Your task to perform on an android device: toggle pop-ups in chrome Image 0: 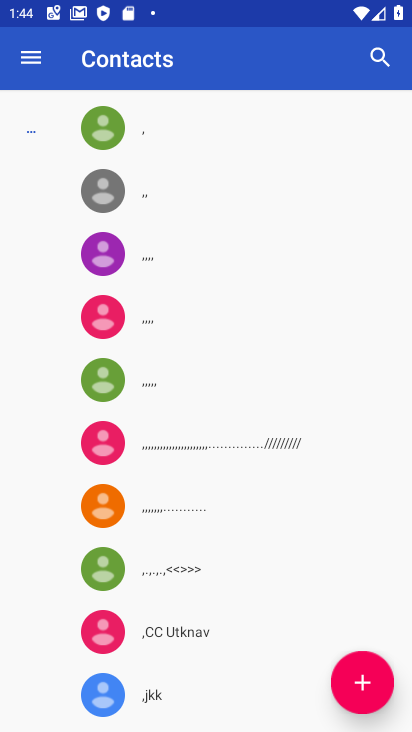
Step 0: press home button
Your task to perform on an android device: toggle pop-ups in chrome Image 1: 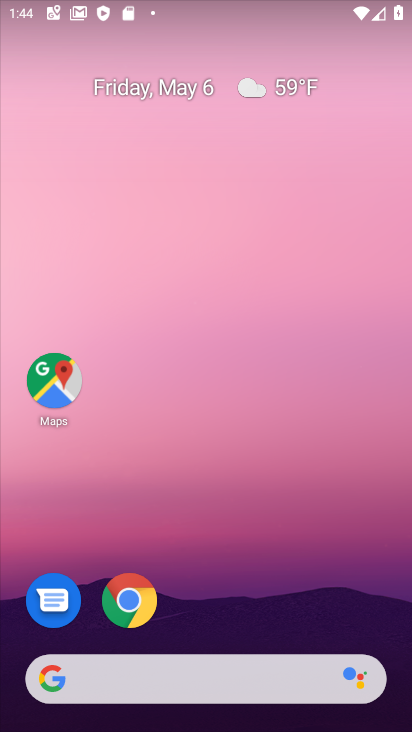
Step 1: click (128, 599)
Your task to perform on an android device: toggle pop-ups in chrome Image 2: 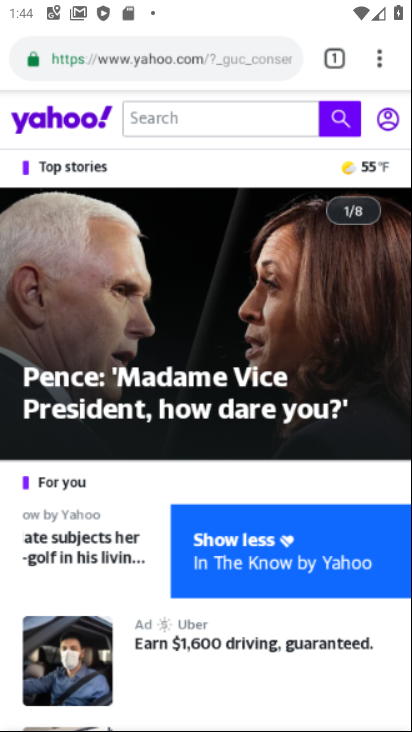
Step 2: click (374, 56)
Your task to perform on an android device: toggle pop-ups in chrome Image 3: 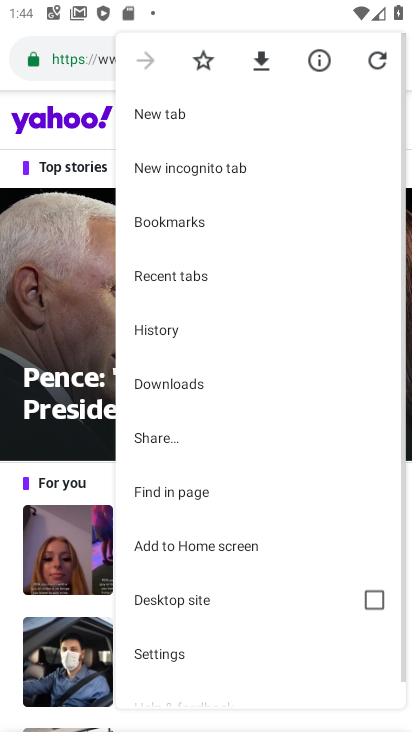
Step 3: click (177, 649)
Your task to perform on an android device: toggle pop-ups in chrome Image 4: 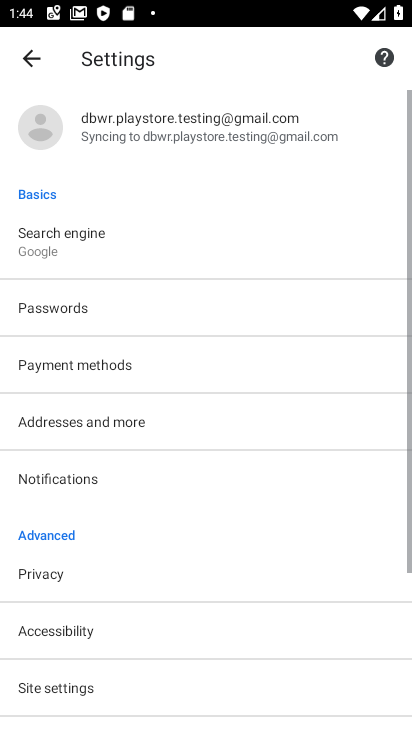
Step 4: click (45, 684)
Your task to perform on an android device: toggle pop-ups in chrome Image 5: 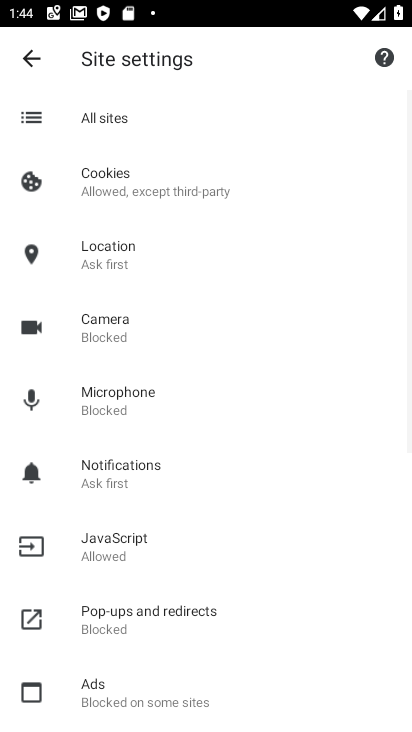
Step 5: click (134, 610)
Your task to perform on an android device: toggle pop-ups in chrome Image 6: 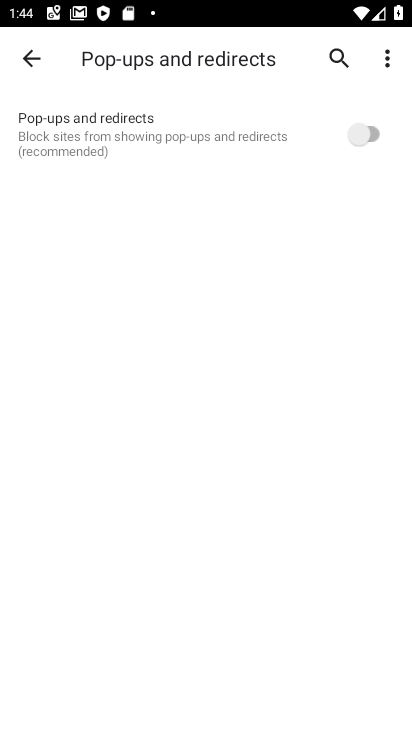
Step 6: click (359, 132)
Your task to perform on an android device: toggle pop-ups in chrome Image 7: 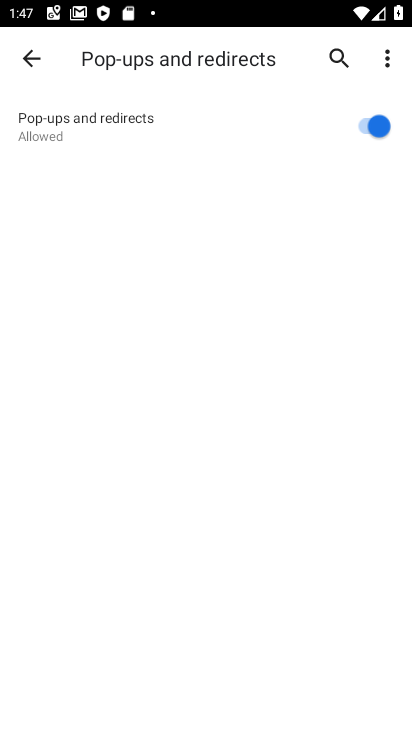
Step 7: task complete